Your task to perform on an android device: How much does a 3 bedroom apartment rent for in Austin? Image 0: 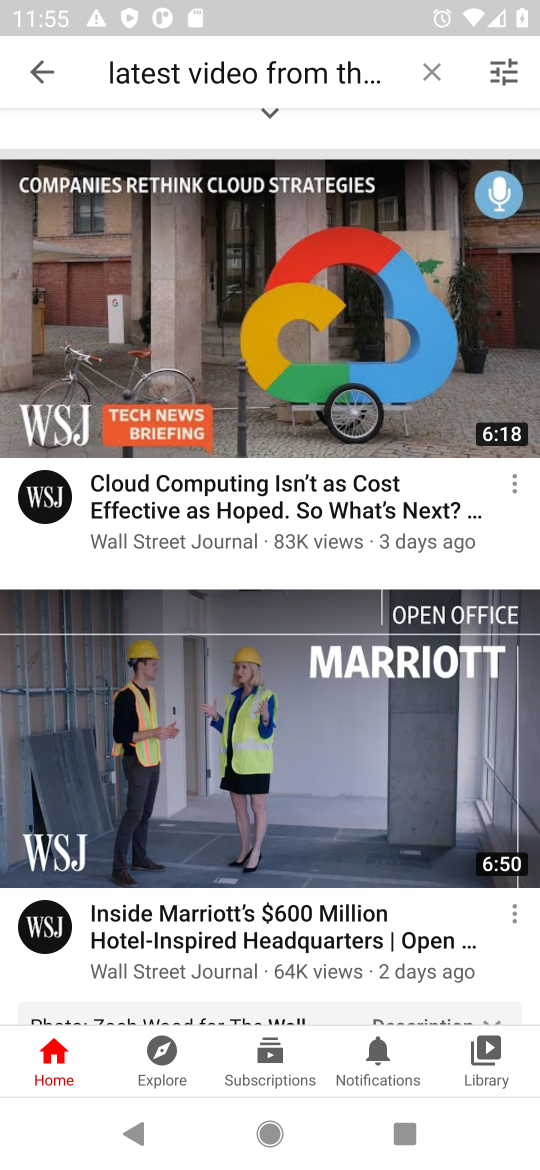
Step 0: press home button
Your task to perform on an android device: How much does a 3 bedroom apartment rent for in Austin? Image 1: 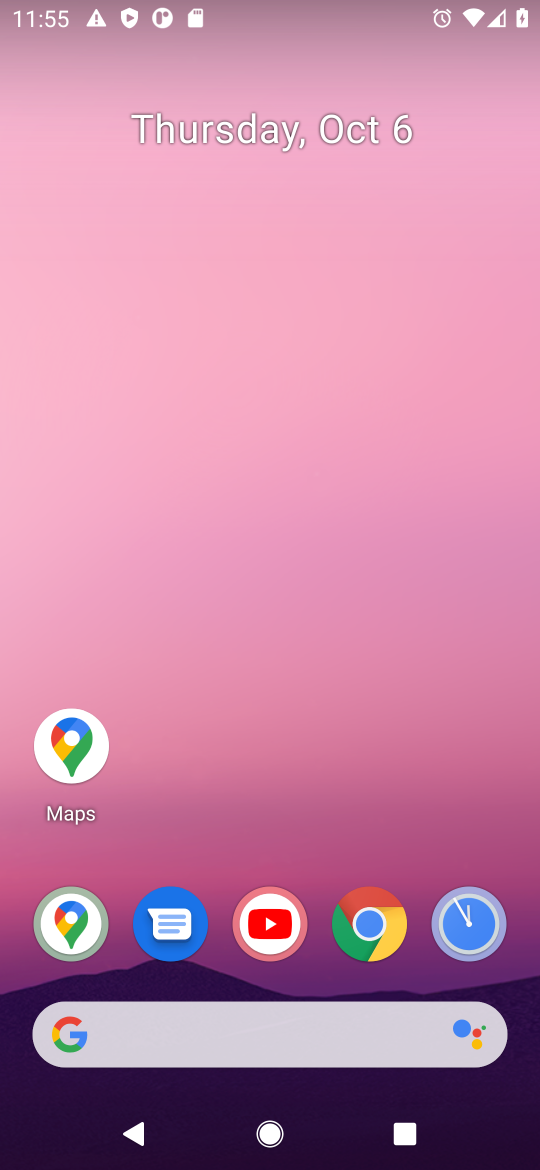
Step 1: click (349, 921)
Your task to perform on an android device: How much does a 3 bedroom apartment rent for in Austin? Image 2: 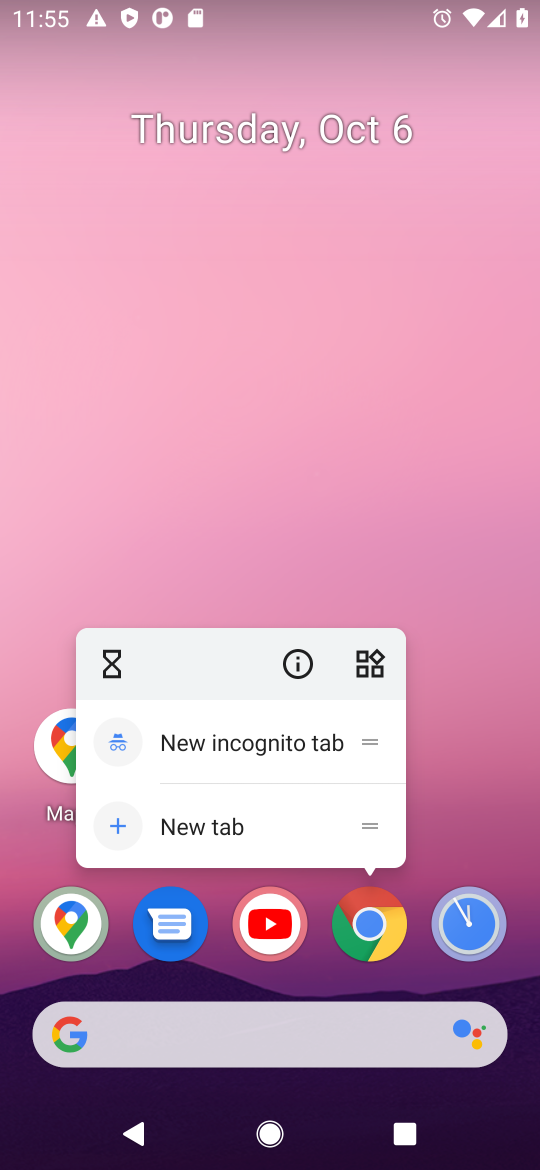
Step 2: click (349, 921)
Your task to perform on an android device: How much does a 3 bedroom apartment rent for in Austin? Image 3: 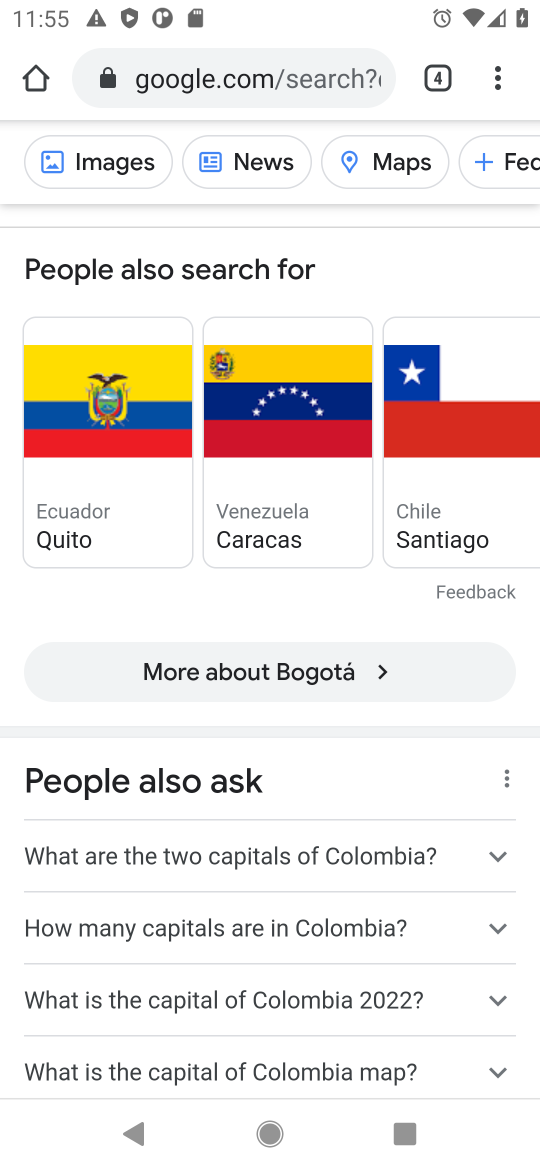
Step 3: click (261, 67)
Your task to perform on an android device: How much does a 3 bedroom apartment rent for in Austin? Image 4: 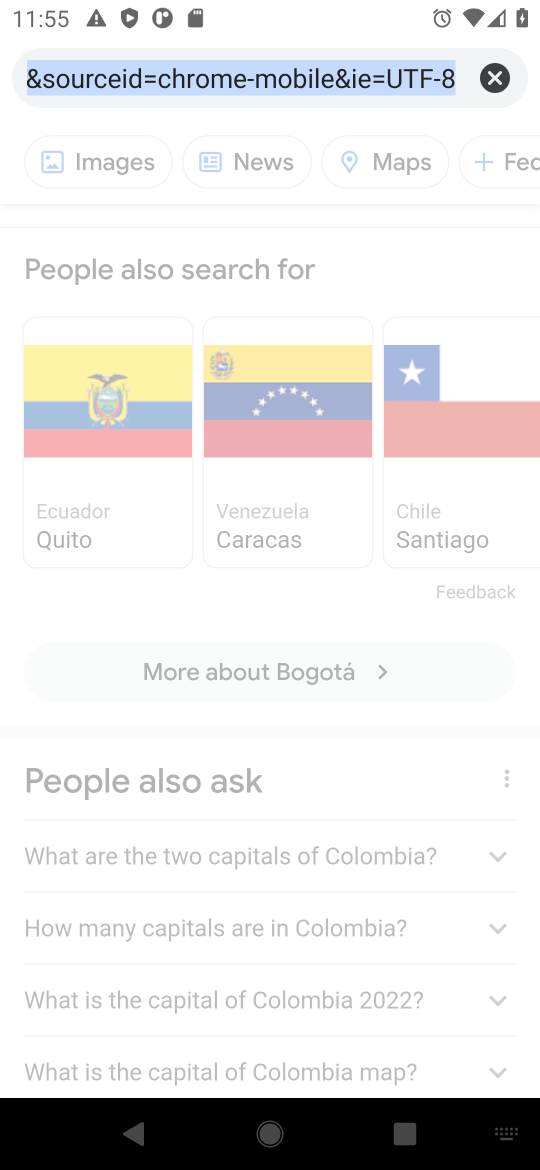
Step 4: click (485, 70)
Your task to perform on an android device: How much does a 3 bedroom apartment rent for in Austin? Image 5: 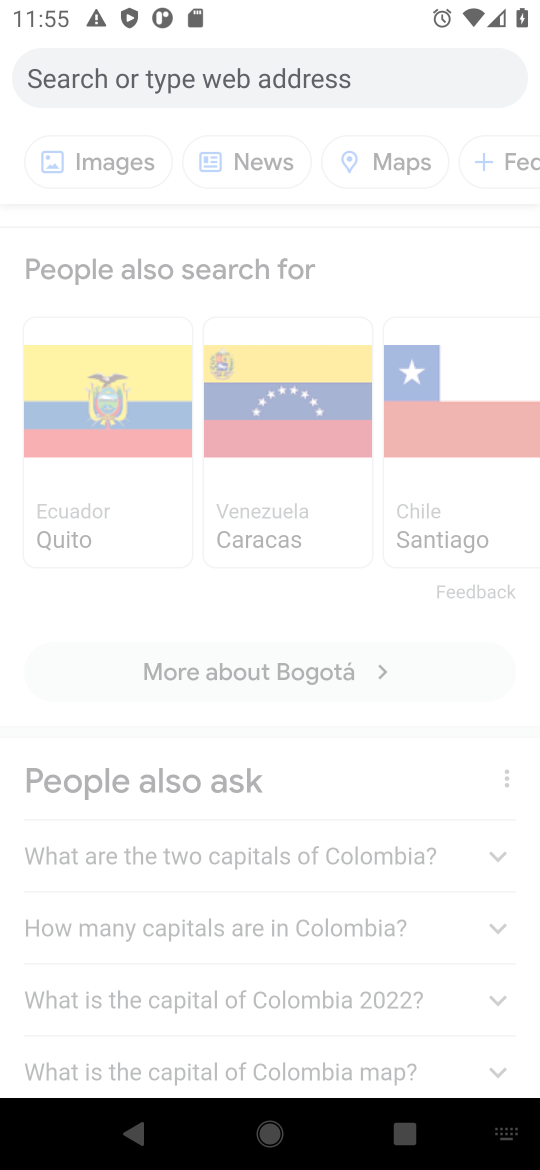
Step 5: type "3 bedroom apartment rent for in Austin"
Your task to perform on an android device: How much does a 3 bedroom apartment rent for in Austin? Image 6: 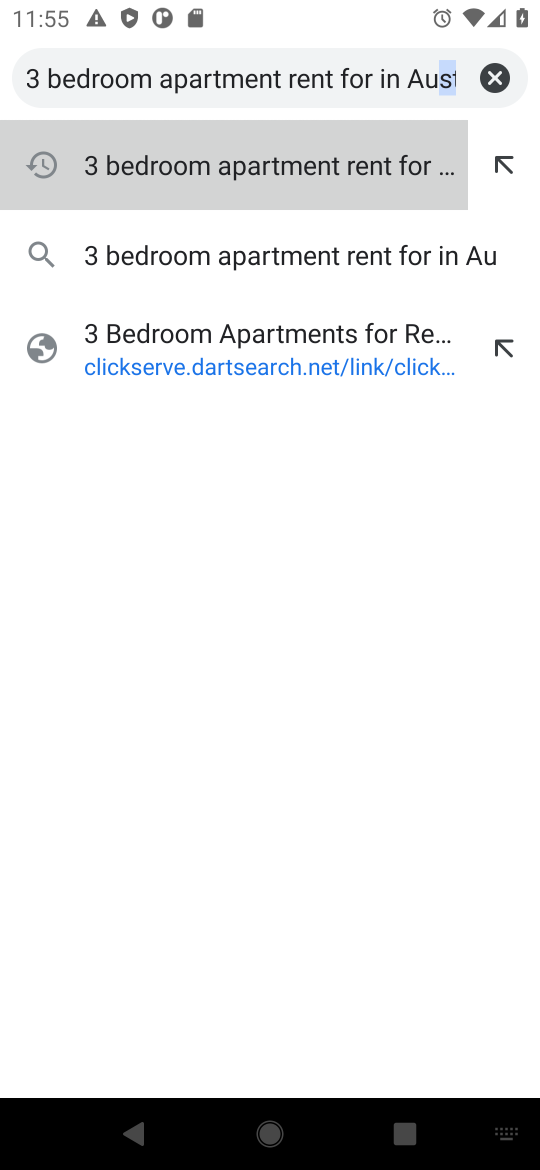
Step 6: click (341, 162)
Your task to perform on an android device: How much does a 3 bedroom apartment rent for in Austin? Image 7: 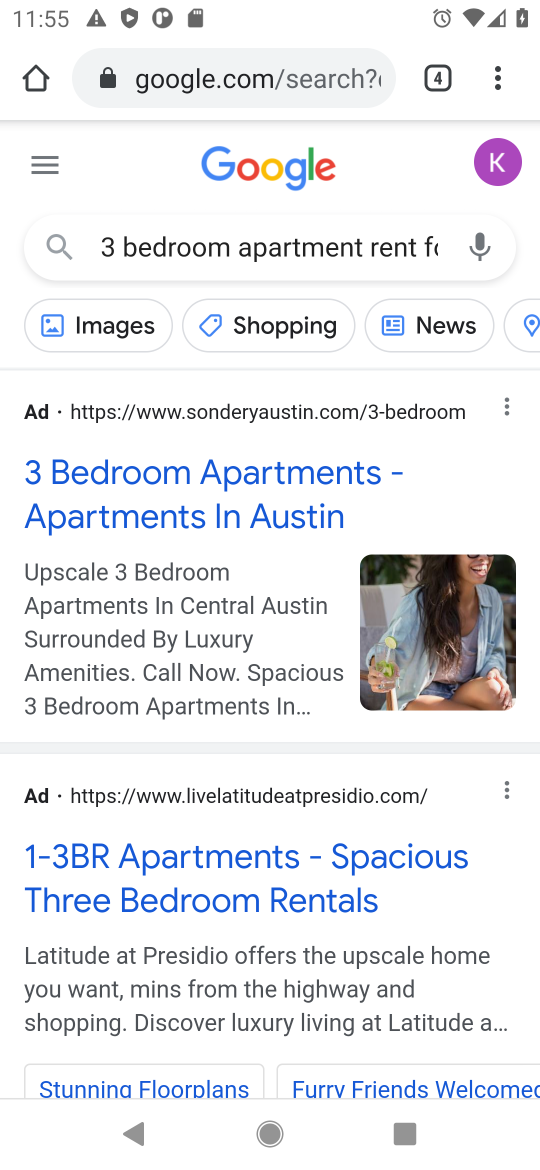
Step 7: drag from (265, 936) to (329, 329)
Your task to perform on an android device: How much does a 3 bedroom apartment rent for in Austin? Image 8: 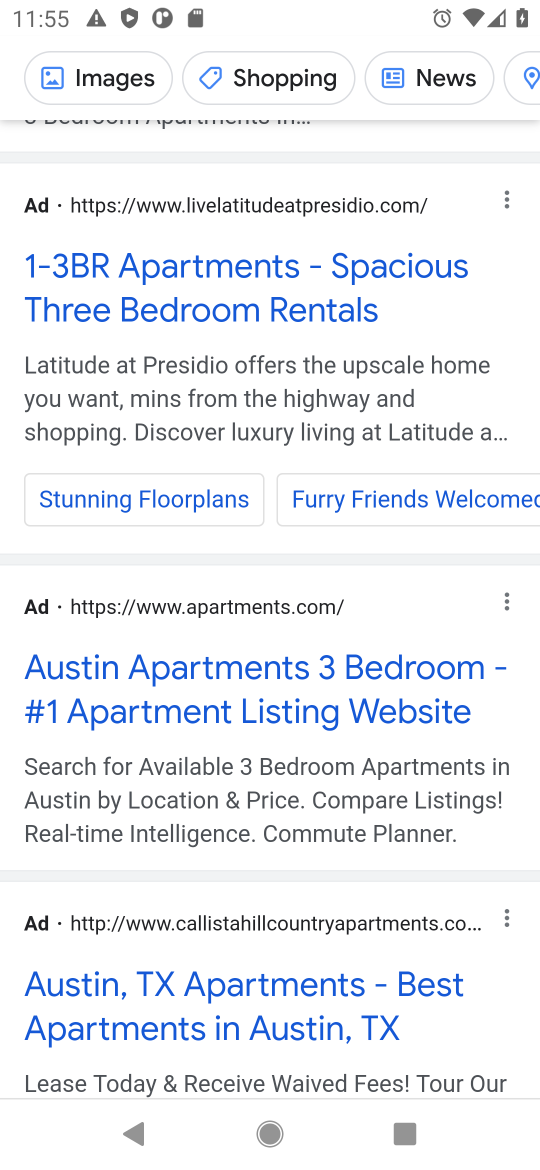
Step 8: drag from (324, 989) to (306, 248)
Your task to perform on an android device: How much does a 3 bedroom apartment rent for in Austin? Image 9: 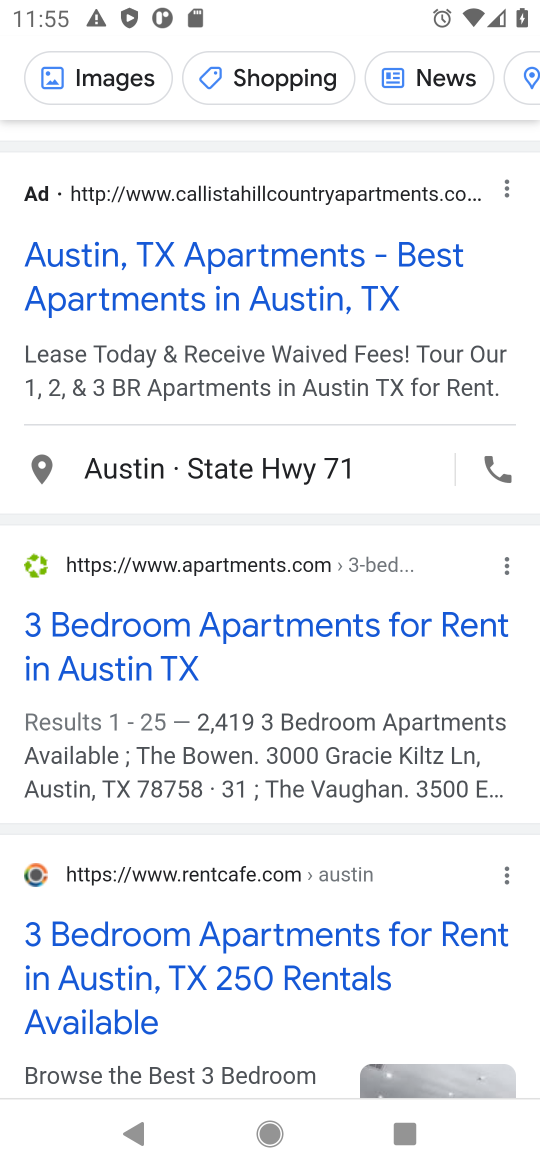
Step 9: click (271, 624)
Your task to perform on an android device: How much does a 3 bedroom apartment rent for in Austin? Image 10: 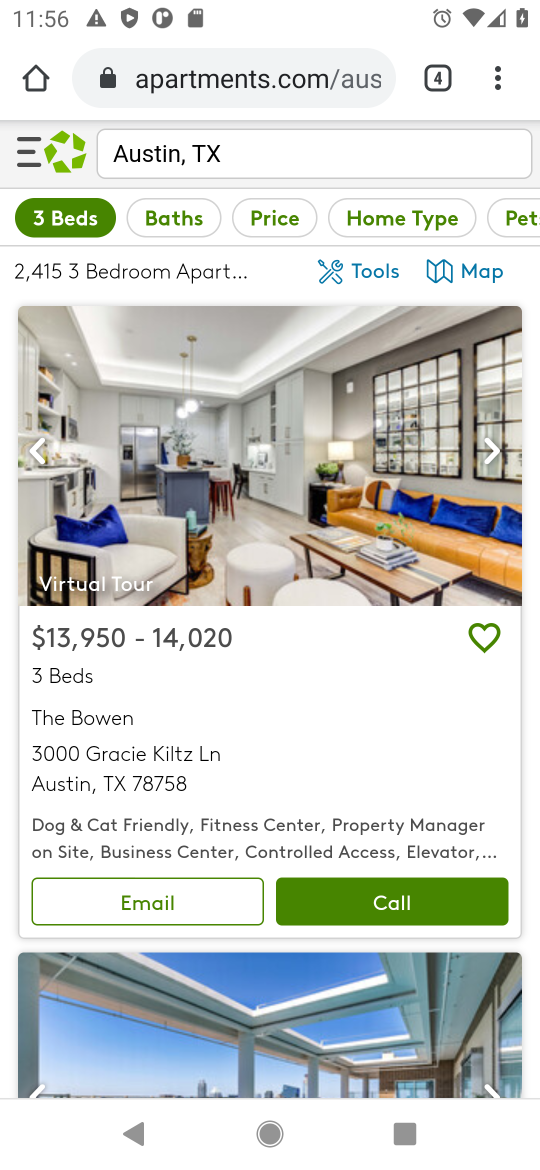
Step 10: task complete